Your task to perform on an android device: Go to Yahoo.com Image 0: 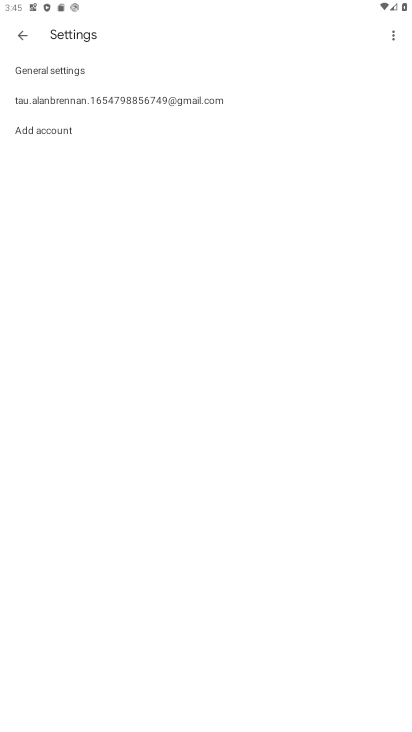
Step 0: press home button
Your task to perform on an android device: Go to Yahoo.com Image 1: 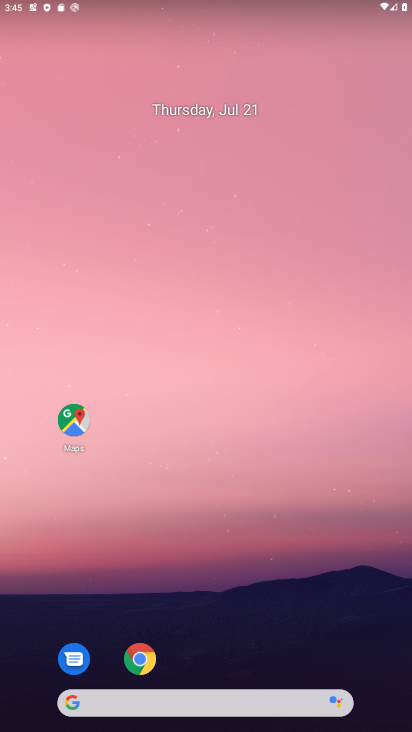
Step 1: drag from (230, 565) to (160, 156)
Your task to perform on an android device: Go to Yahoo.com Image 2: 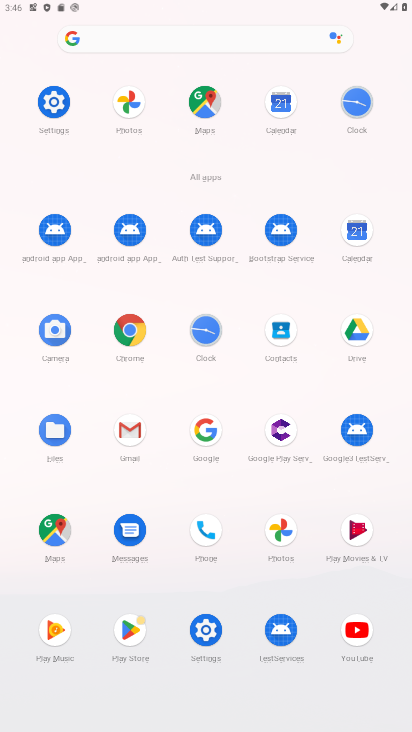
Step 2: click (51, 104)
Your task to perform on an android device: Go to Yahoo.com Image 3: 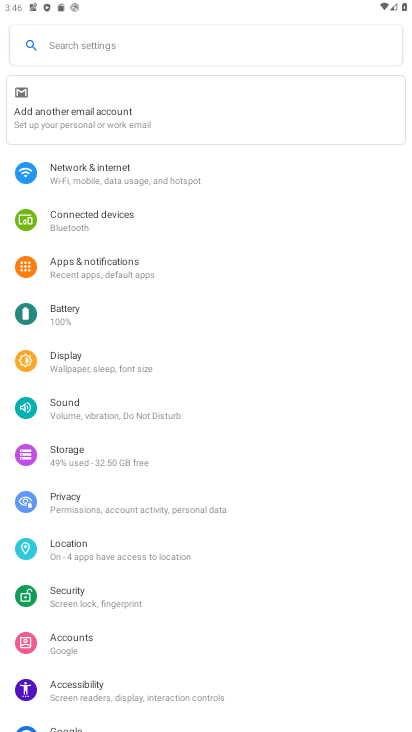
Step 3: click (57, 95)
Your task to perform on an android device: Go to Yahoo.com Image 4: 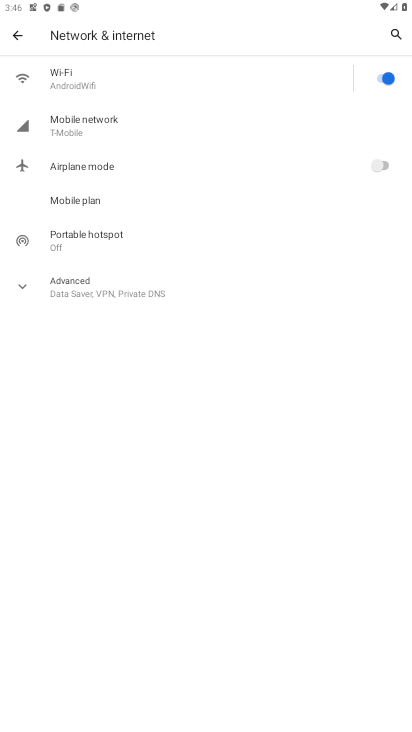
Step 4: click (73, 81)
Your task to perform on an android device: Go to Yahoo.com Image 5: 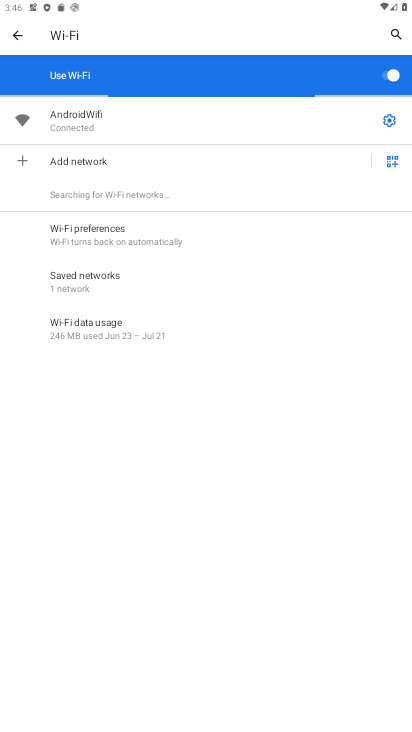
Step 5: click (62, 70)
Your task to perform on an android device: Go to Yahoo.com Image 6: 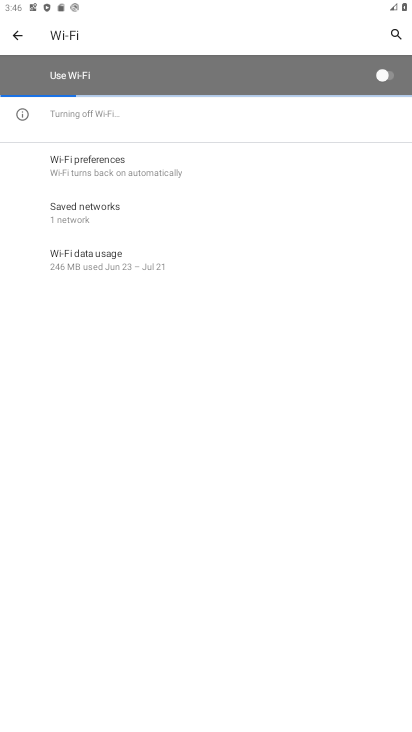
Step 6: task complete